Your task to perform on an android device: Open battery settings Image 0: 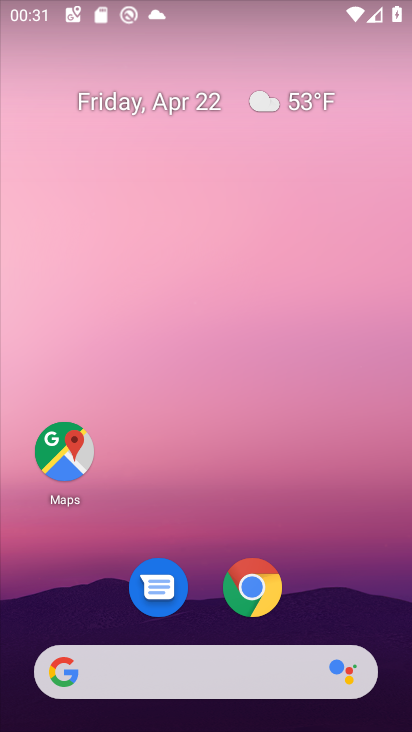
Step 0: drag from (308, 617) to (309, 173)
Your task to perform on an android device: Open battery settings Image 1: 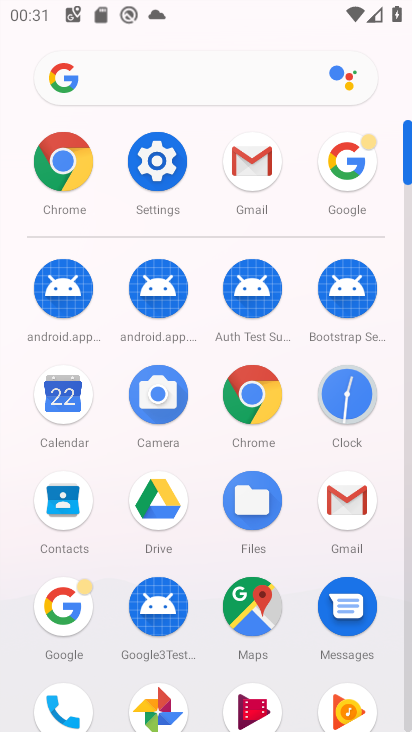
Step 1: click (150, 175)
Your task to perform on an android device: Open battery settings Image 2: 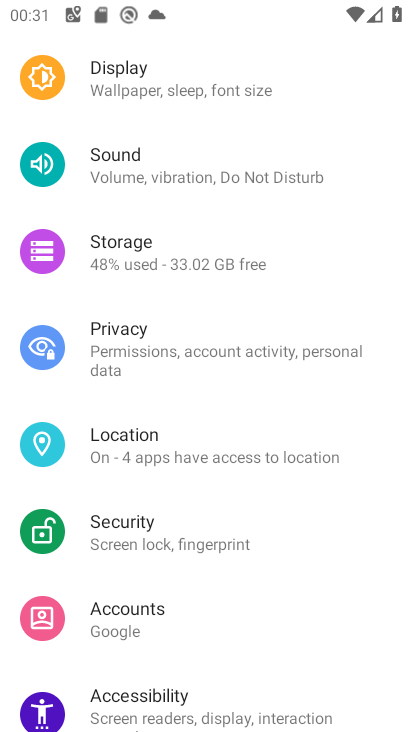
Step 2: drag from (225, 190) to (217, 566)
Your task to perform on an android device: Open battery settings Image 3: 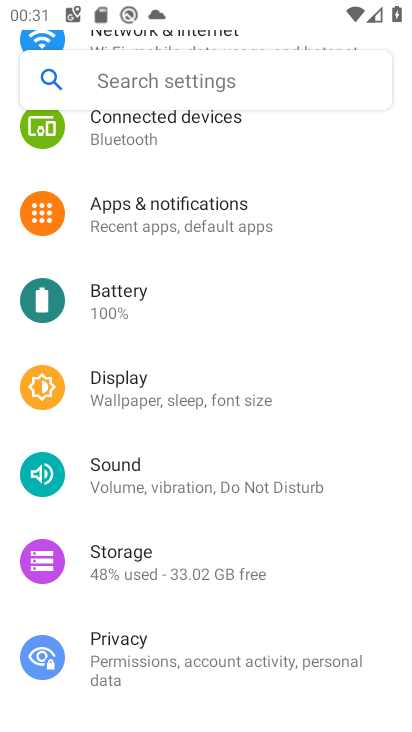
Step 3: click (177, 300)
Your task to perform on an android device: Open battery settings Image 4: 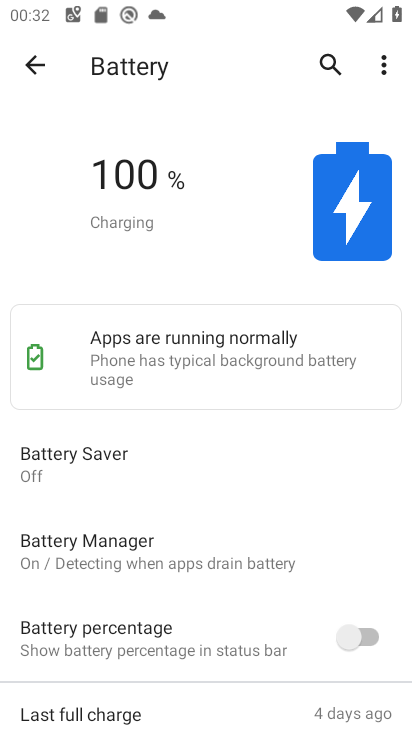
Step 4: task complete